Your task to perform on an android device: remove spam from my inbox in the gmail app Image 0: 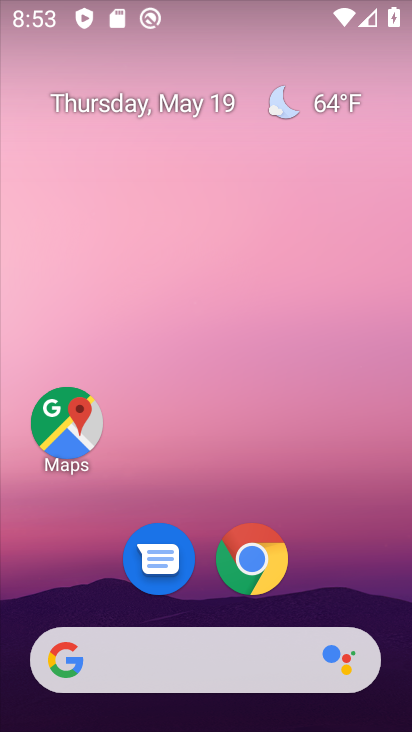
Step 0: drag from (208, 726) to (144, 138)
Your task to perform on an android device: remove spam from my inbox in the gmail app Image 1: 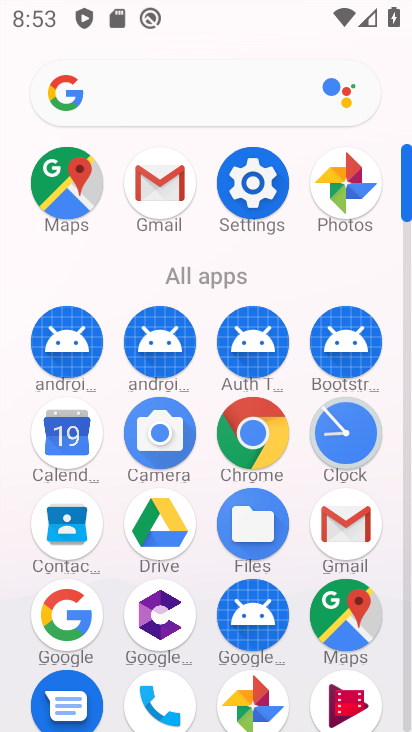
Step 1: click (355, 525)
Your task to perform on an android device: remove spam from my inbox in the gmail app Image 2: 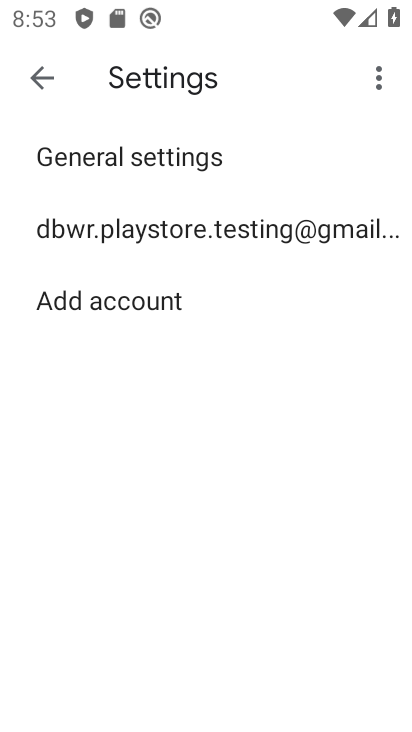
Step 2: click (37, 66)
Your task to perform on an android device: remove spam from my inbox in the gmail app Image 3: 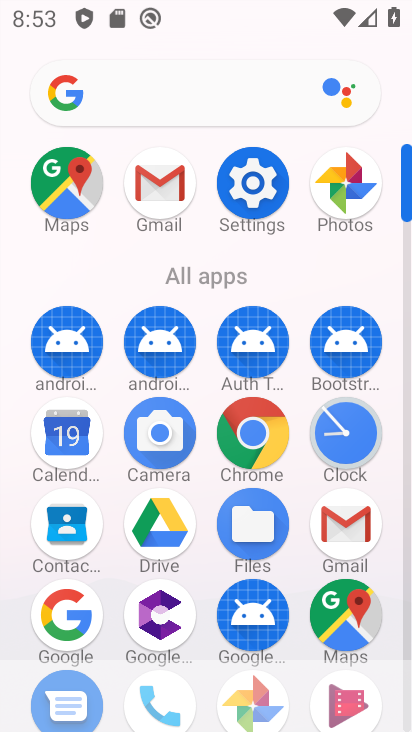
Step 3: click (160, 186)
Your task to perform on an android device: remove spam from my inbox in the gmail app Image 4: 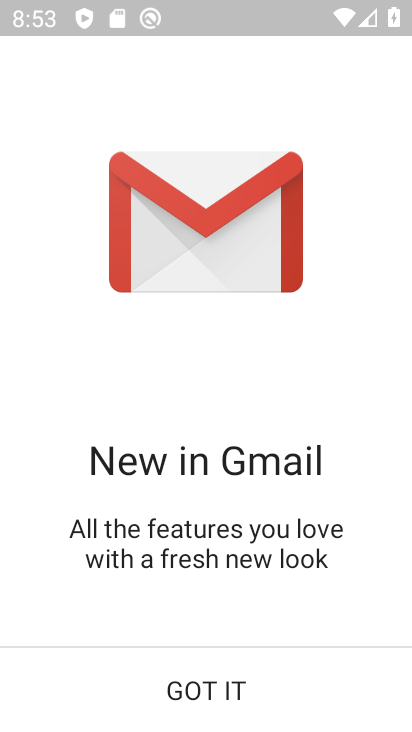
Step 4: click (178, 700)
Your task to perform on an android device: remove spam from my inbox in the gmail app Image 5: 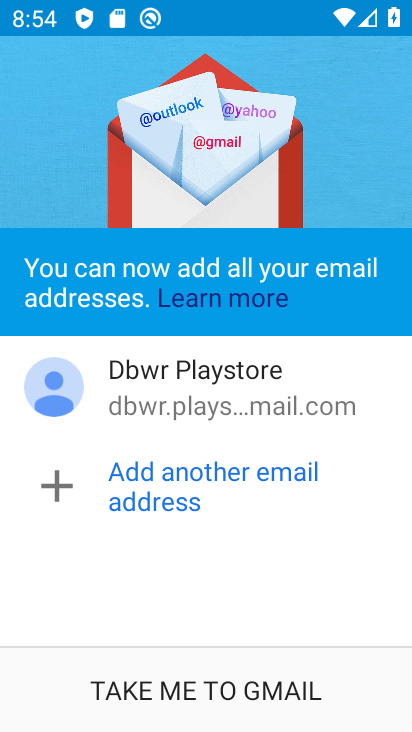
Step 5: click (182, 683)
Your task to perform on an android device: remove spam from my inbox in the gmail app Image 6: 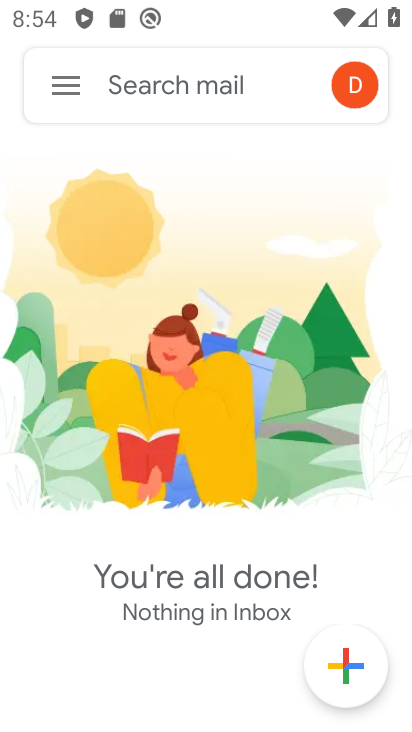
Step 6: task complete